Your task to perform on an android device: What's the weather? Image 0: 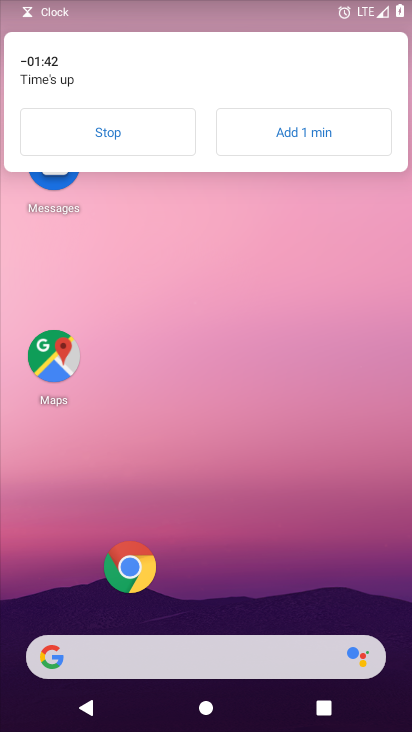
Step 0: click (140, 126)
Your task to perform on an android device: What's the weather? Image 1: 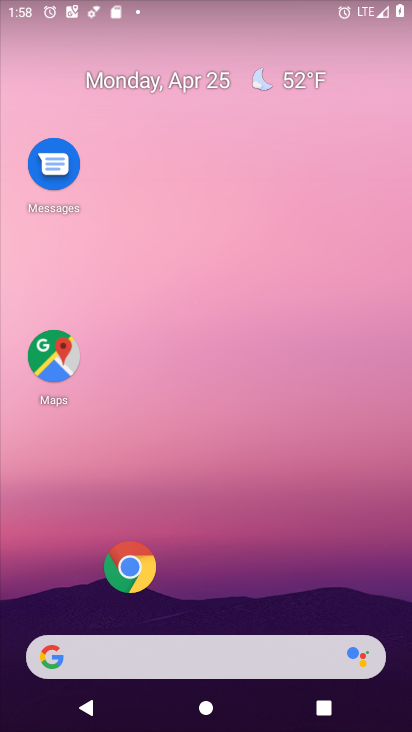
Step 1: drag from (270, 567) to (308, 221)
Your task to perform on an android device: What's the weather? Image 2: 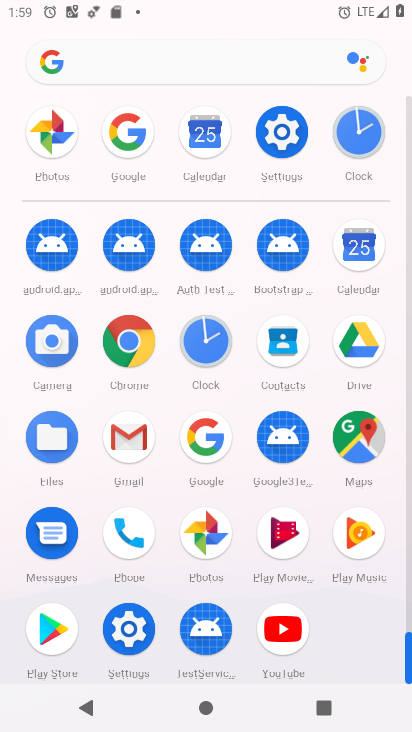
Step 2: click (195, 453)
Your task to perform on an android device: What's the weather? Image 3: 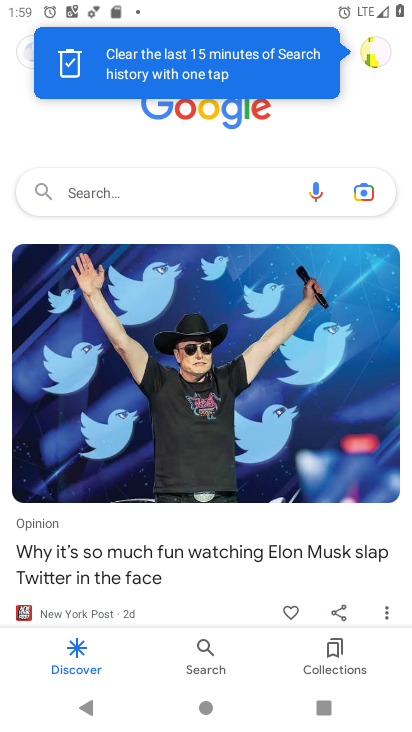
Step 3: click (198, 185)
Your task to perform on an android device: What's the weather? Image 4: 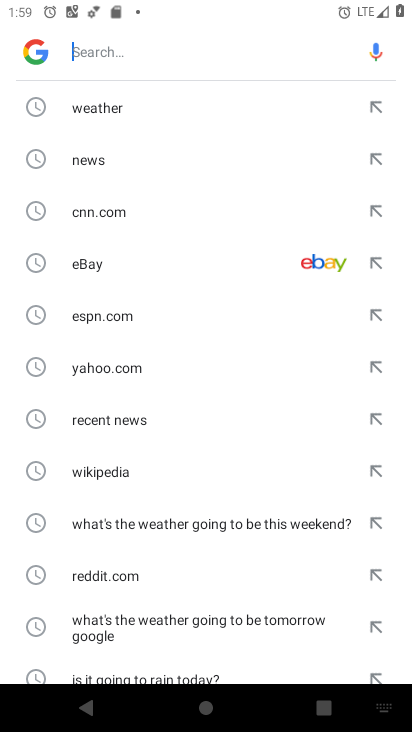
Step 4: click (162, 105)
Your task to perform on an android device: What's the weather? Image 5: 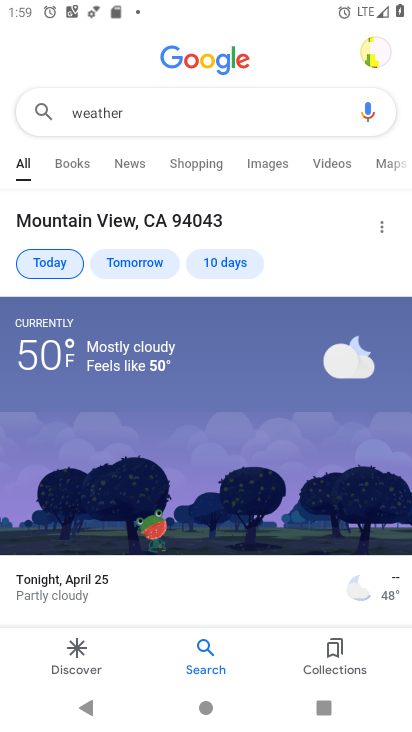
Step 5: task complete